Your task to perform on an android device: See recent photos Image 0: 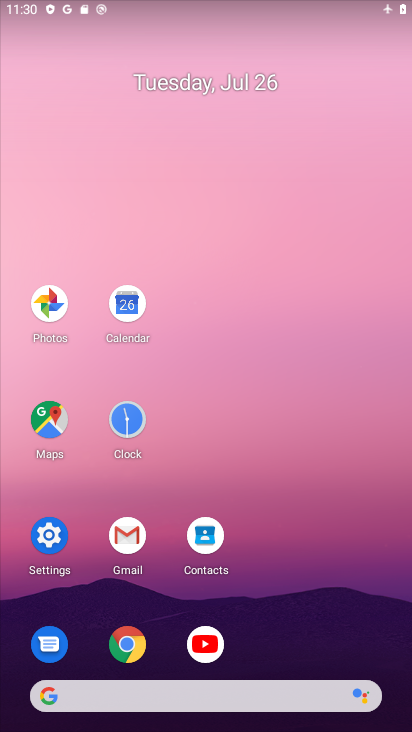
Step 0: click (50, 299)
Your task to perform on an android device: See recent photos Image 1: 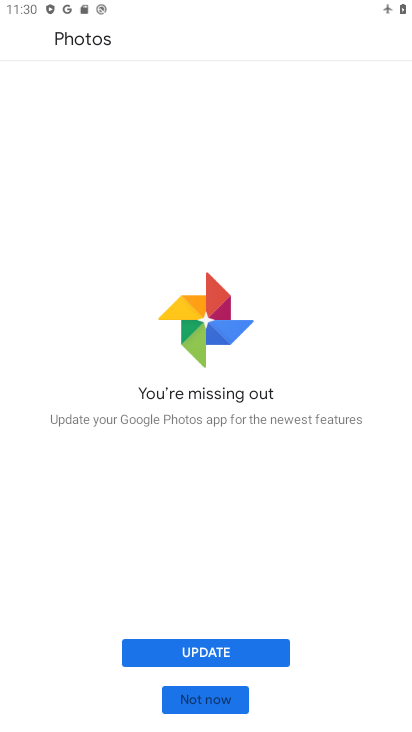
Step 1: click (203, 651)
Your task to perform on an android device: See recent photos Image 2: 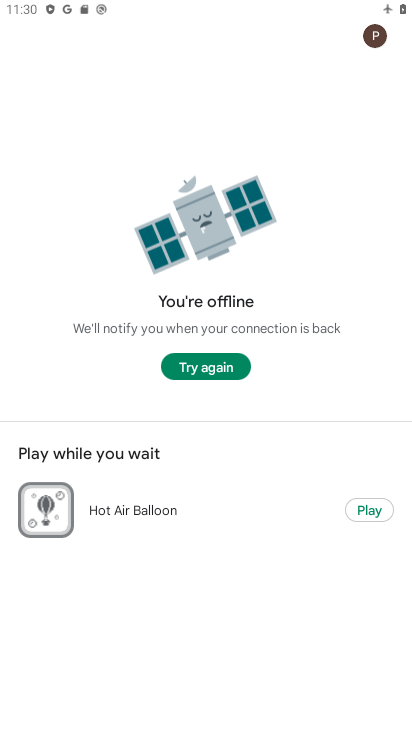
Step 2: task complete